Your task to perform on an android device: toggle location history Image 0: 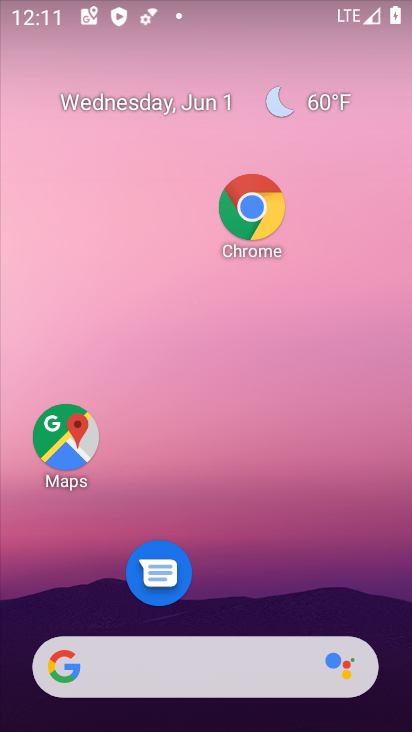
Step 0: drag from (225, 570) to (191, 168)
Your task to perform on an android device: toggle location history Image 1: 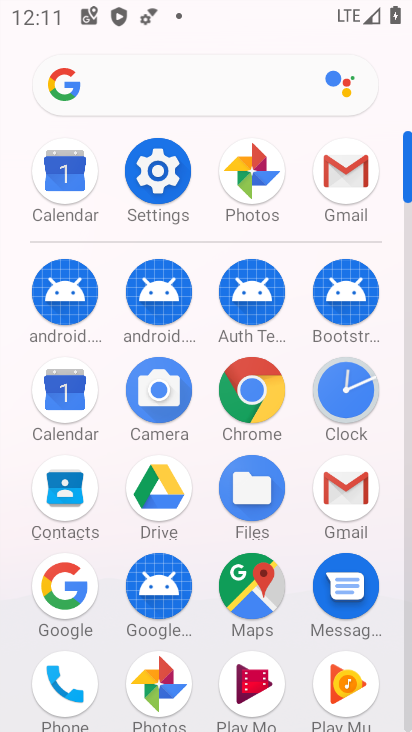
Step 1: click (165, 191)
Your task to perform on an android device: toggle location history Image 2: 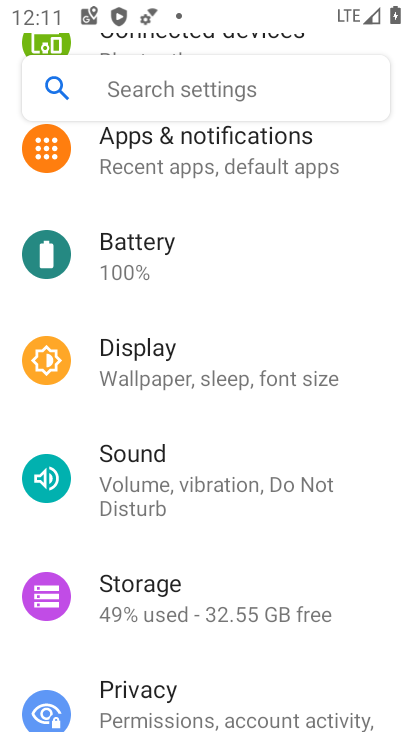
Step 2: drag from (200, 627) to (202, 288)
Your task to perform on an android device: toggle location history Image 3: 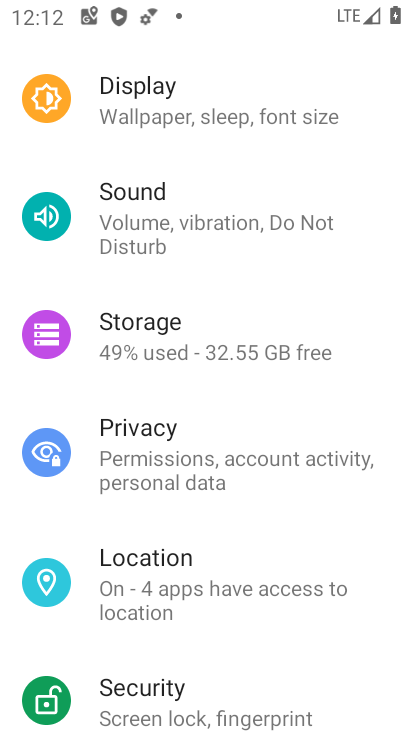
Step 3: click (187, 568)
Your task to perform on an android device: toggle location history Image 4: 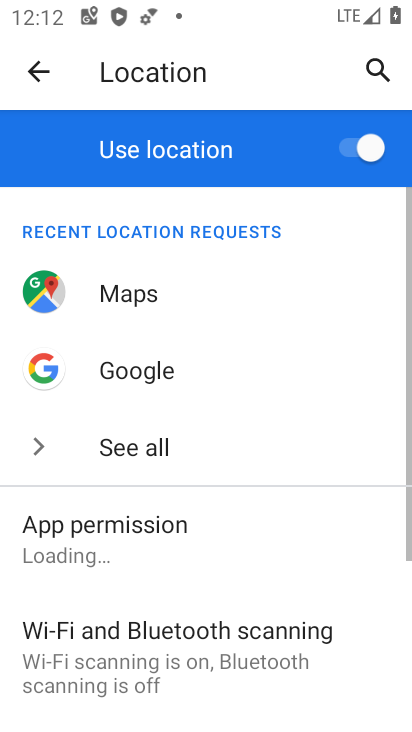
Step 4: drag from (187, 568) to (183, 270)
Your task to perform on an android device: toggle location history Image 5: 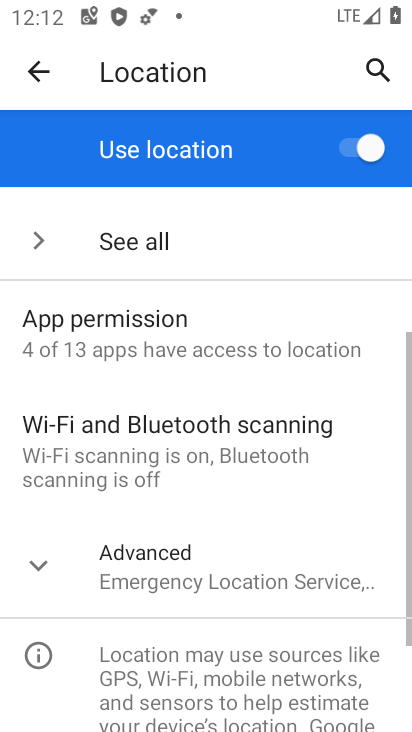
Step 5: click (186, 542)
Your task to perform on an android device: toggle location history Image 6: 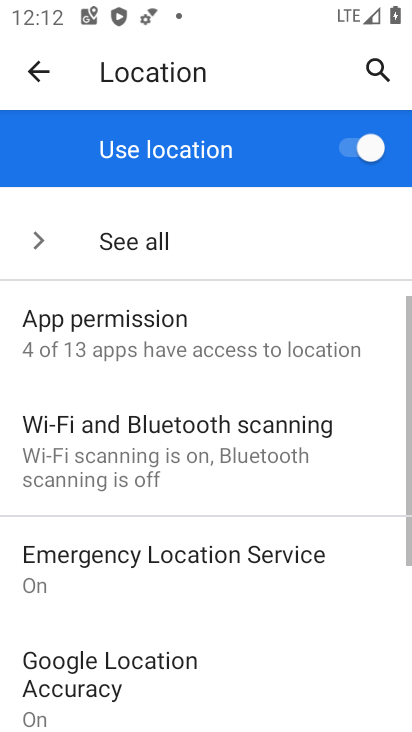
Step 6: drag from (197, 547) to (183, 291)
Your task to perform on an android device: toggle location history Image 7: 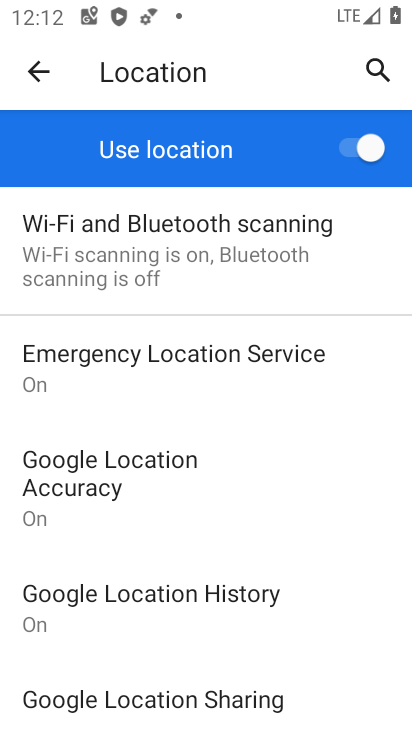
Step 7: click (190, 606)
Your task to perform on an android device: toggle location history Image 8: 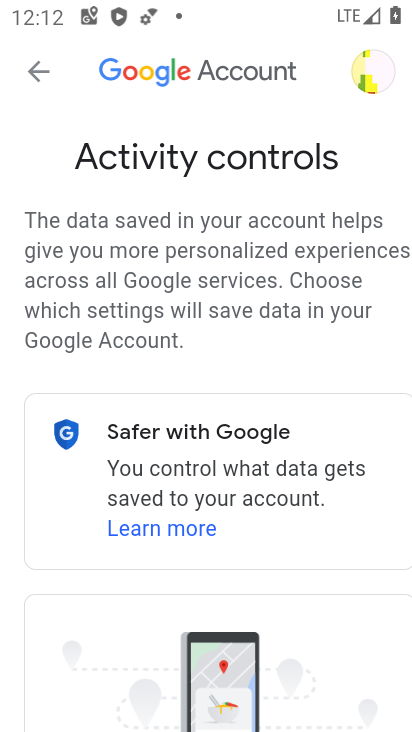
Step 8: drag from (268, 711) to (245, 339)
Your task to perform on an android device: toggle location history Image 9: 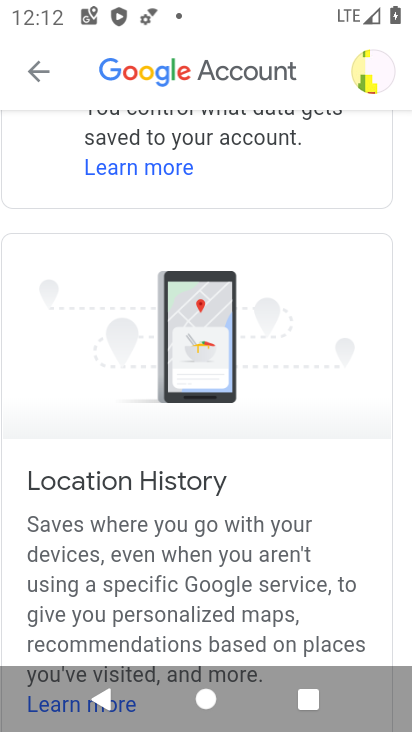
Step 9: drag from (266, 578) to (245, 292)
Your task to perform on an android device: toggle location history Image 10: 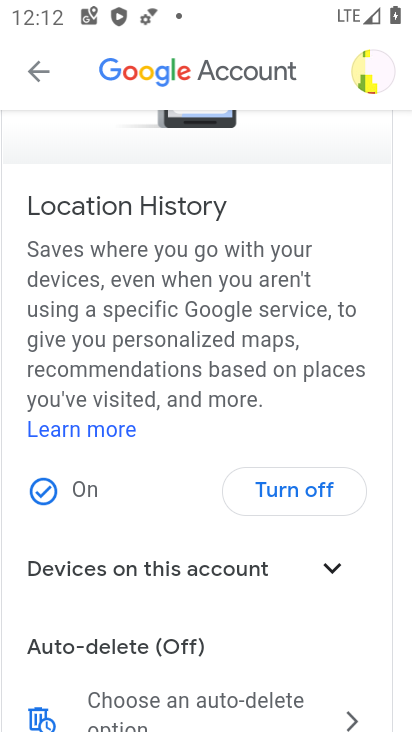
Step 10: click (284, 507)
Your task to perform on an android device: toggle location history Image 11: 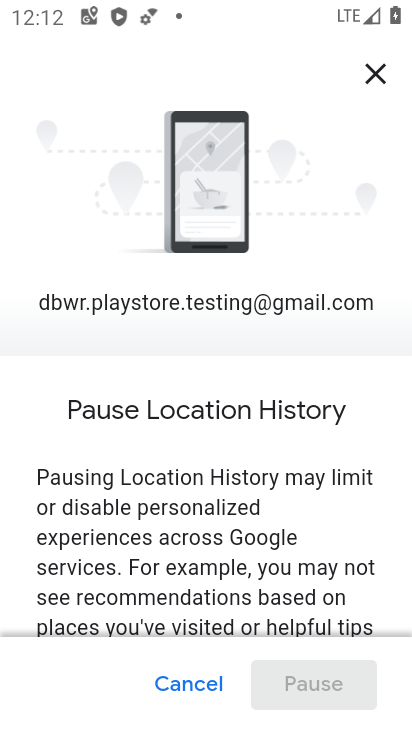
Step 11: drag from (305, 539) to (262, 199)
Your task to perform on an android device: toggle location history Image 12: 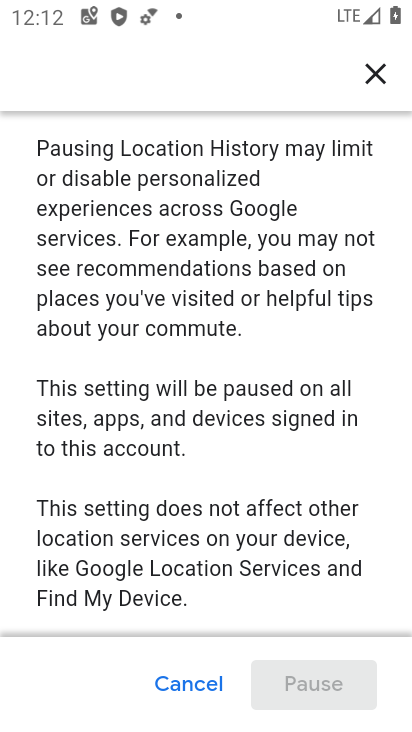
Step 12: drag from (275, 494) to (260, 210)
Your task to perform on an android device: toggle location history Image 13: 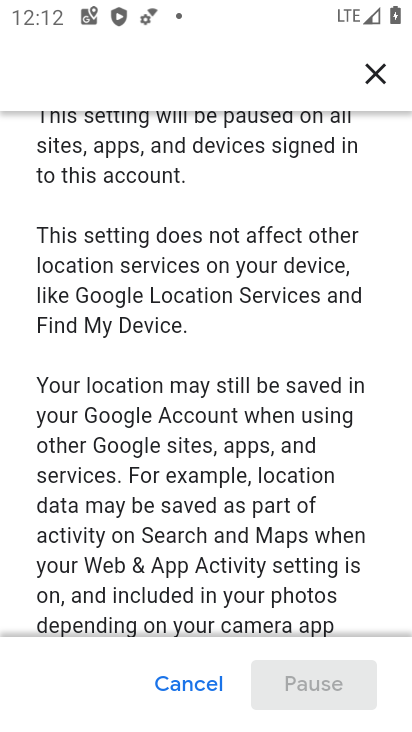
Step 13: drag from (289, 585) to (247, 248)
Your task to perform on an android device: toggle location history Image 14: 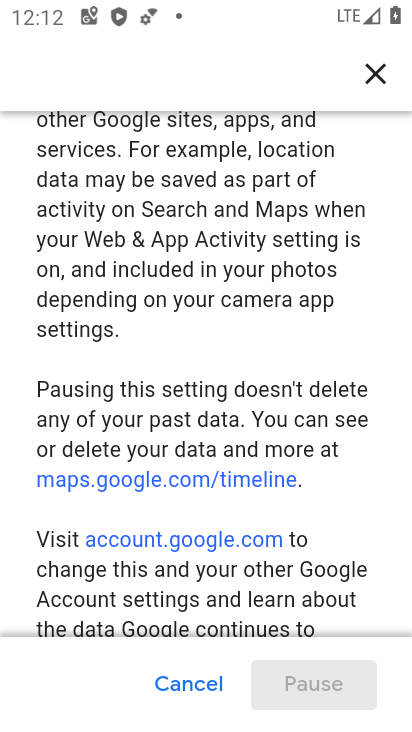
Step 14: drag from (278, 582) to (265, 304)
Your task to perform on an android device: toggle location history Image 15: 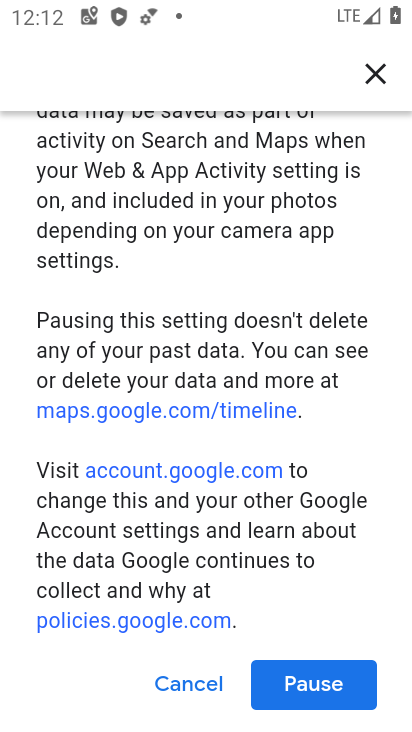
Step 15: click (313, 680)
Your task to perform on an android device: toggle location history Image 16: 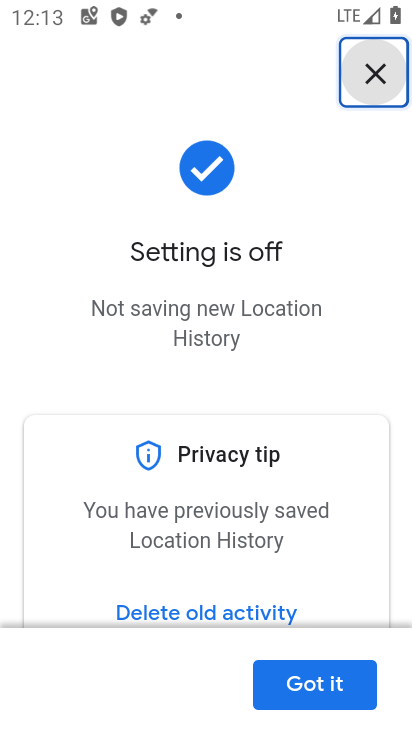
Step 16: task complete